Your task to perform on an android device: open app "ColorNote Notepad Notes" Image 0: 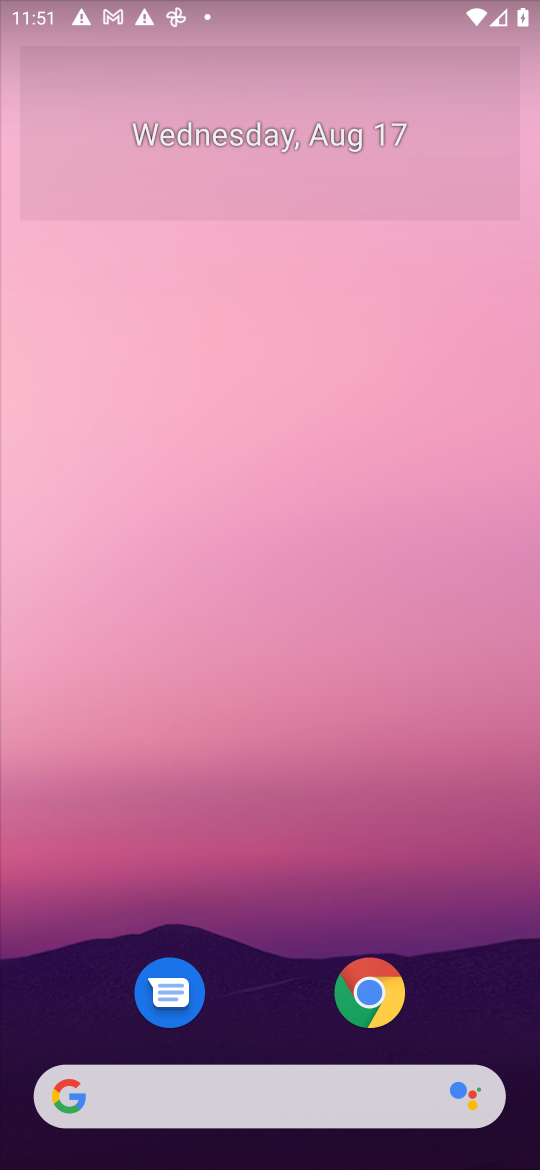
Step 0: drag from (385, 588) to (150, 0)
Your task to perform on an android device: open app "ColorNote Notepad Notes" Image 1: 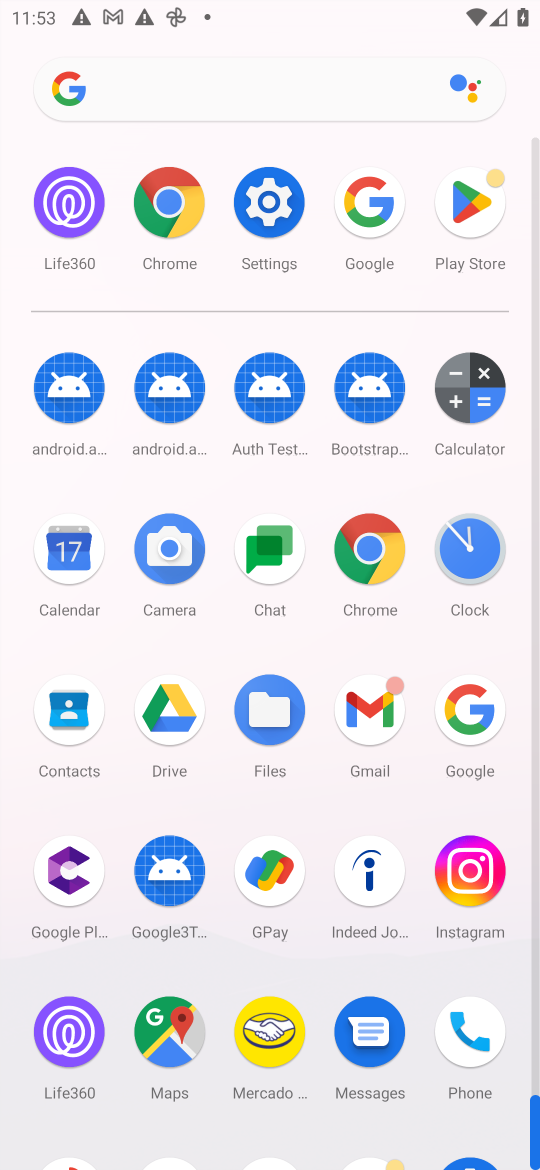
Step 1: click (446, 213)
Your task to perform on an android device: open app "ColorNote Notepad Notes" Image 2: 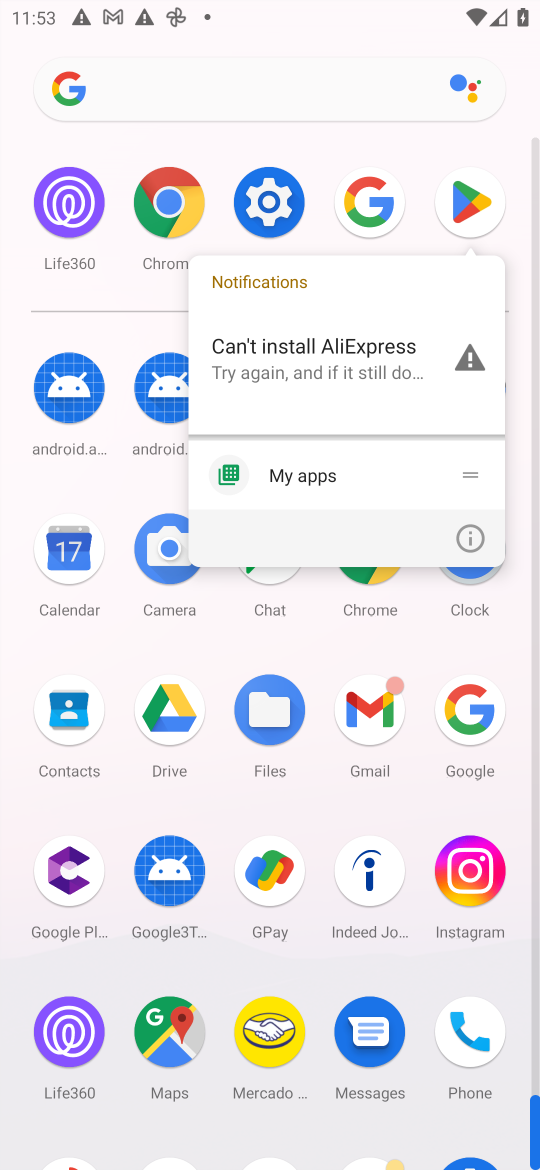
Step 2: click (474, 177)
Your task to perform on an android device: open app "ColorNote Notepad Notes" Image 3: 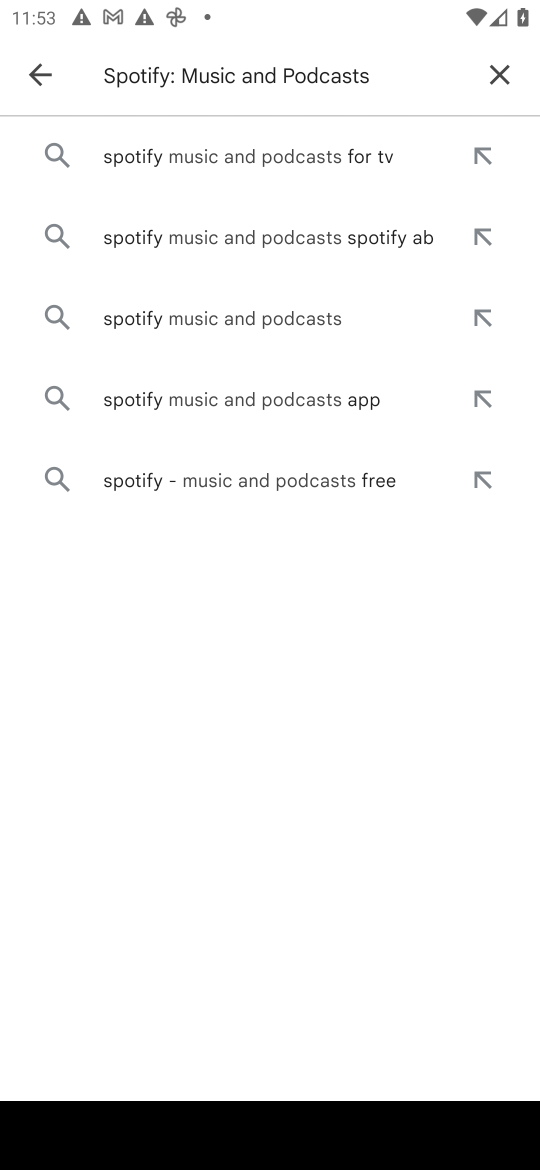
Step 3: click (500, 81)
Your task to perform on an android device: open app "ColorNote Notepad Notes" Image 4: 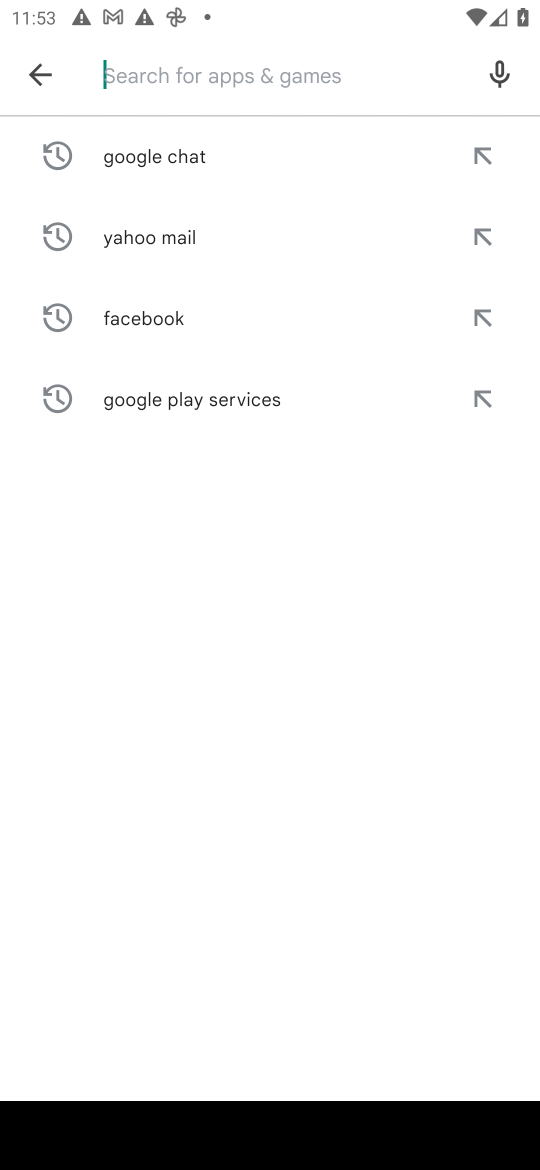
Step 4: click (221, 90)
Your task to perform on an android device: open app "ColorNote Notepad Notes" Image 5: 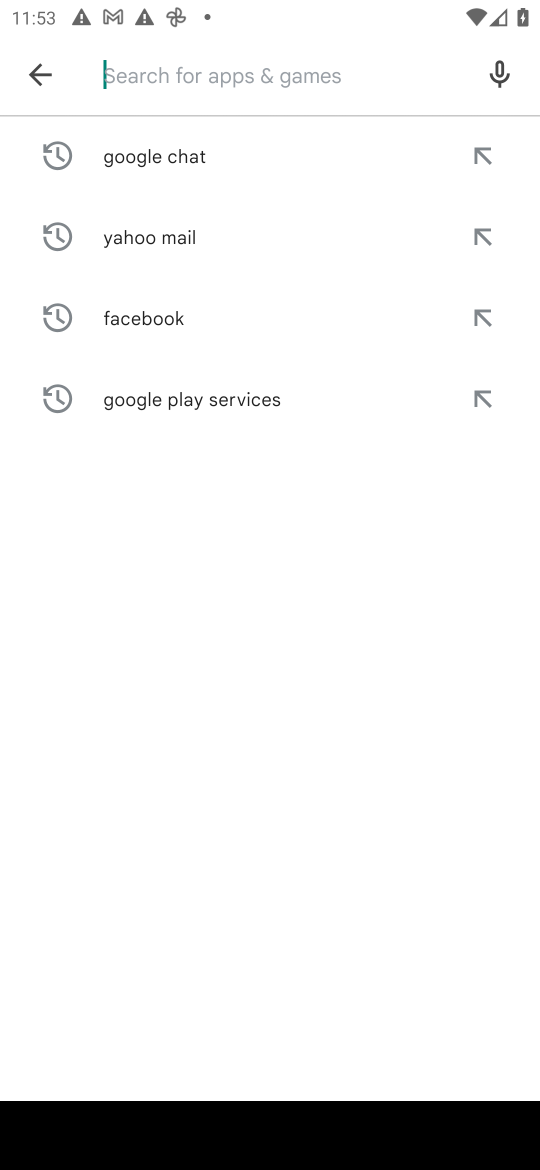
Step 5: type "ColorNote Notepad Notes"
Your task to perform on an android device: open app "ColorNote Notepad Notes" Image 6: 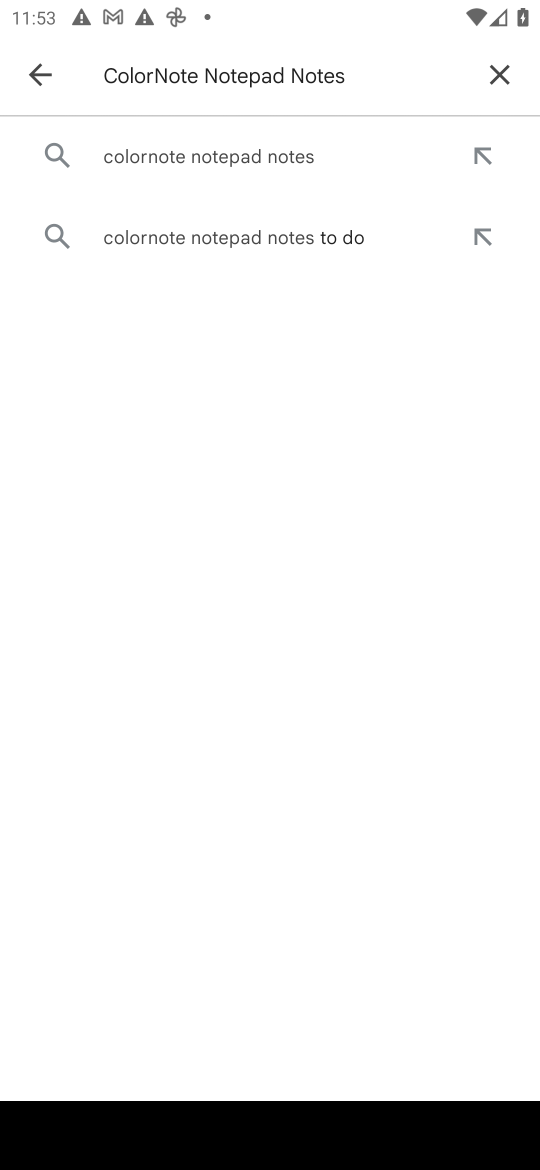
Step 6: click (235, 152)
Your task to perform on an android device: open app "ColorNote Notepad Notes" Image 7: 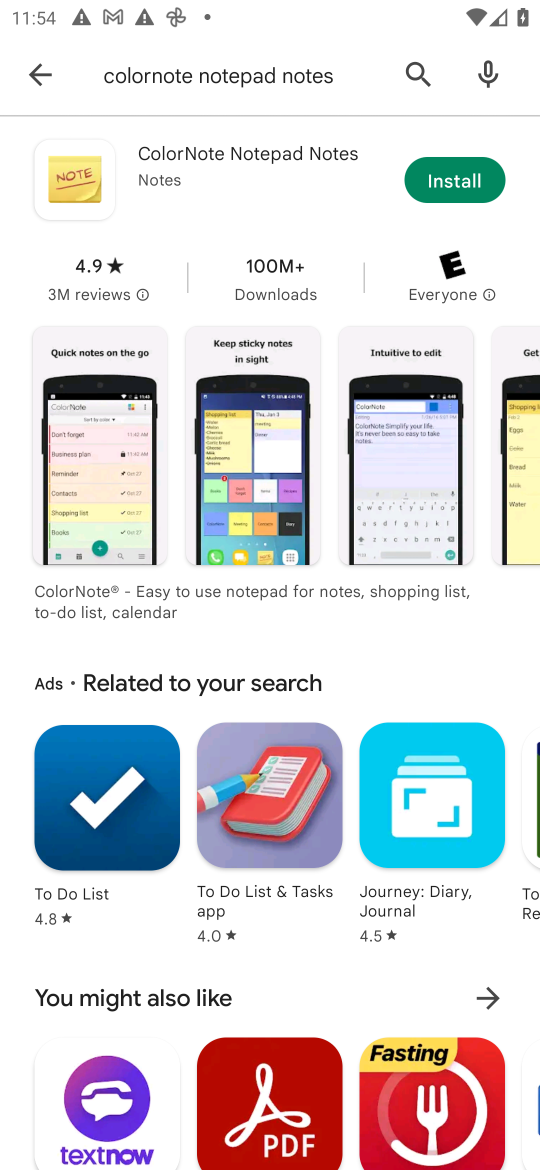
Step 7: task complete